Your task to perform on an android device: turn on translation in the chrome app Image 0: 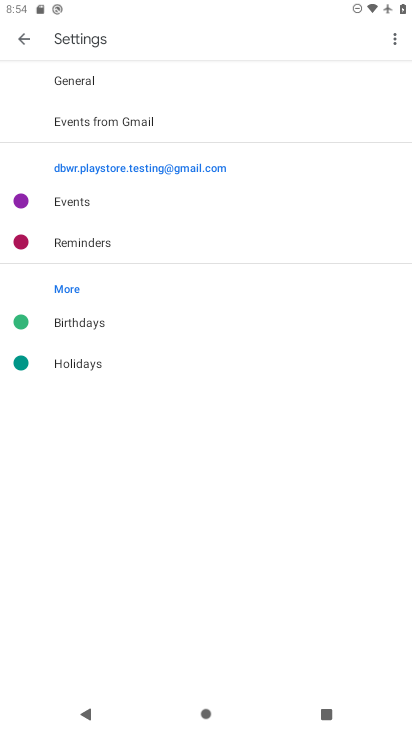
Step 0: press home button
Your task to perform on an android device: turn on translation in the chrome app Image 1: 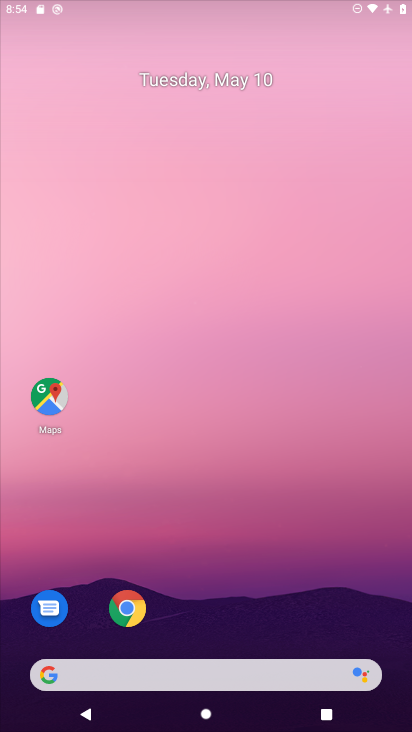
Step 1: drag from (236, 635) to (257, 249)
Your task to perform on an android device: turn on translation in the chrome app Image 2: 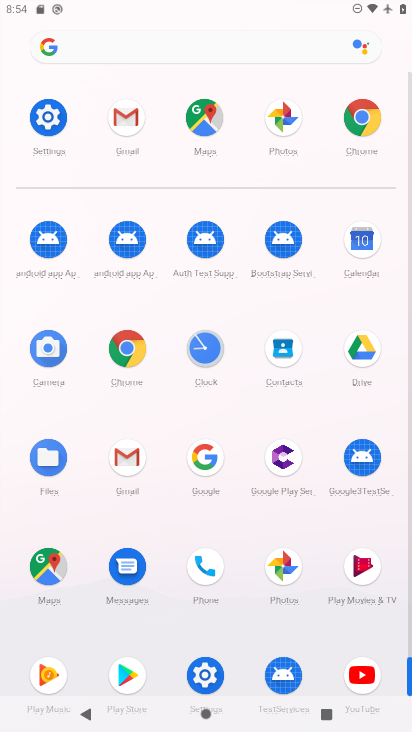
Step 2: click (121, 348)
Your task to perform on an android device: turn on translation in the chrome app Image 3: 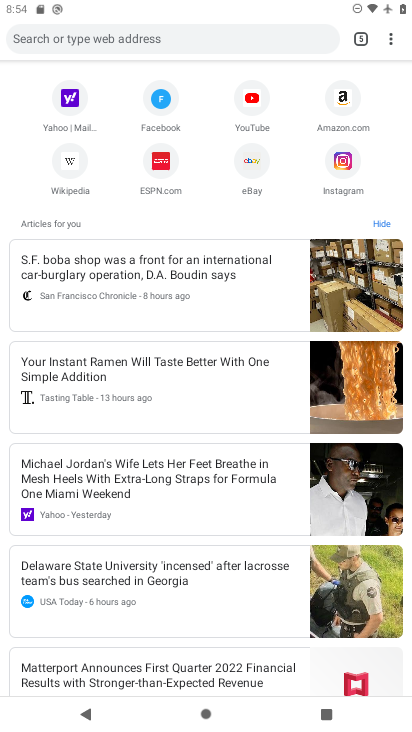
Step 3: click (376, 37)
Your task to perform on an android device: turn on translation in the chrome app Image 4: 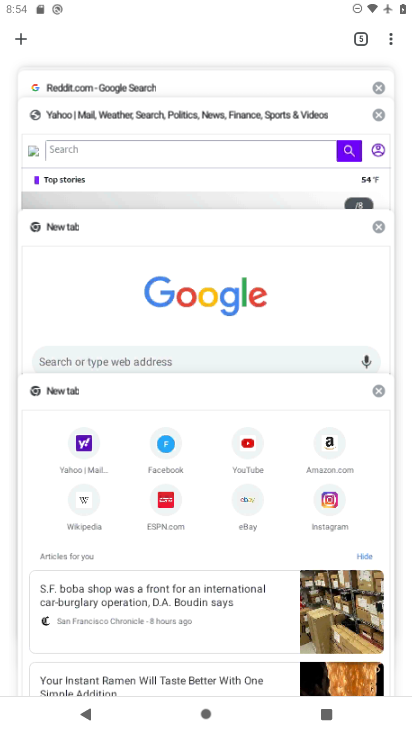
Step 4: click (376, 39)
Your task to perform on an android device: turn on translation in the chrome app Image 5: 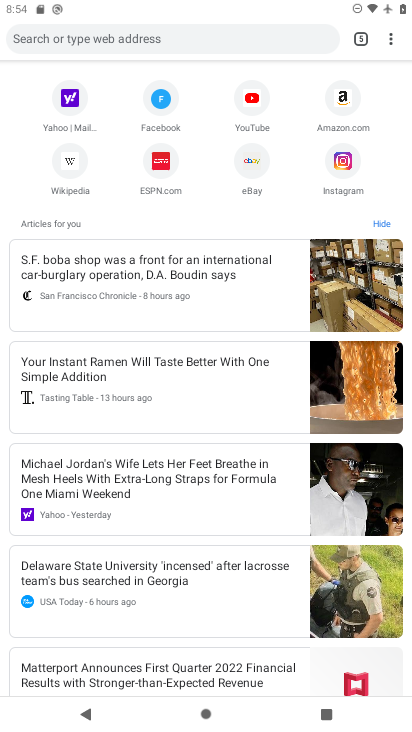
Step 5: click (376, 39)
Your task to perform on an android device: turn on translation in the chrome app Image 6: 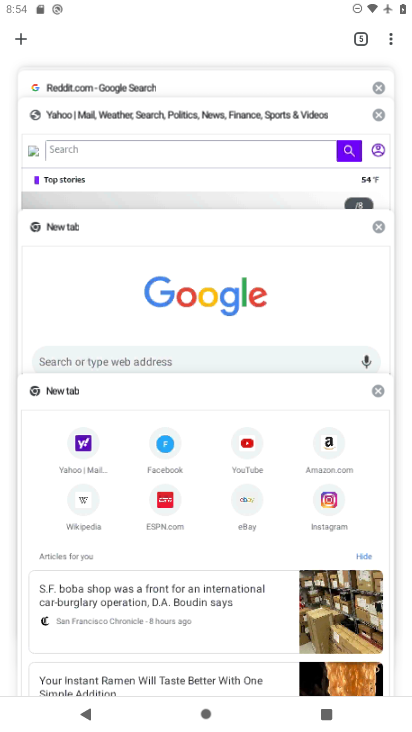
Step 6: click (376, 39)
Your task to perform on an android device: turn on translation in the chrome app Image 7: 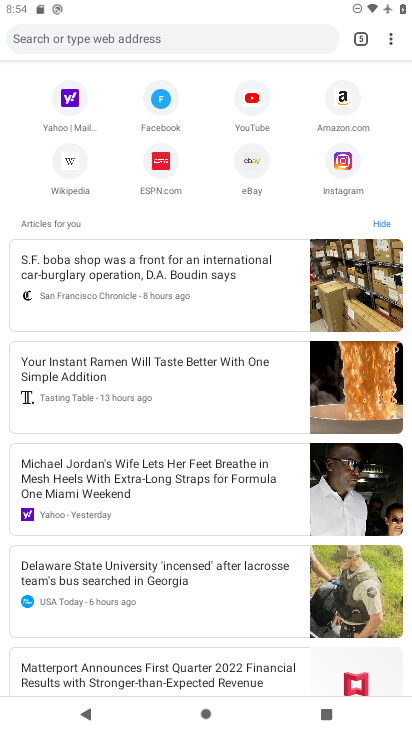
Step 7: click (377, 36)
Your task to perform on an android device: turn on translation in the chrome app Image 8: 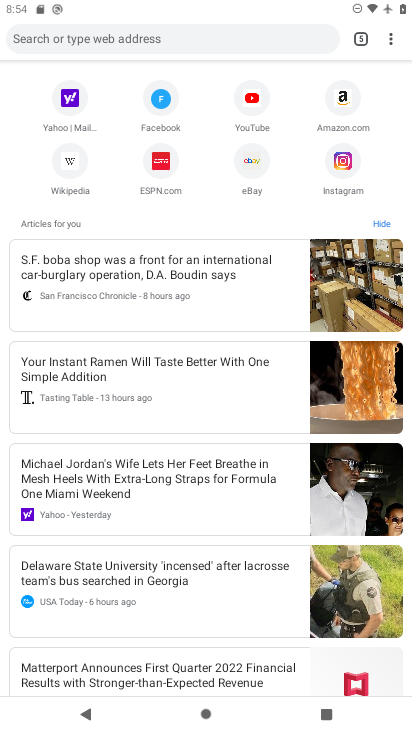
Step 8: click (377, 33)
Your task to perform on an android device: turn on translation in the chrome app Image 9: 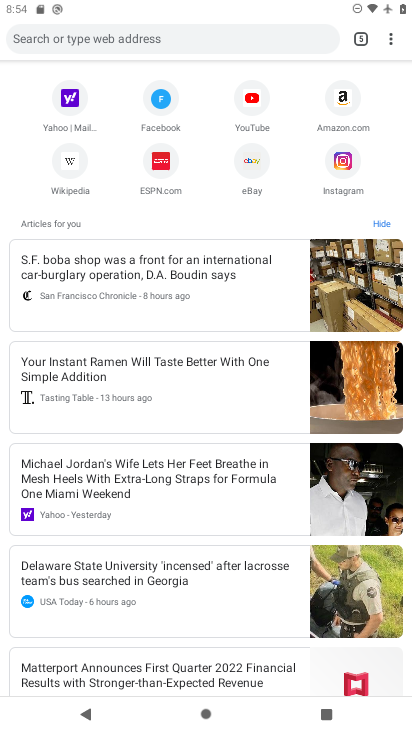
Step 9: click (371, 34)
Your task to perform on an android device: turn on translation in the chrome app Image 10: 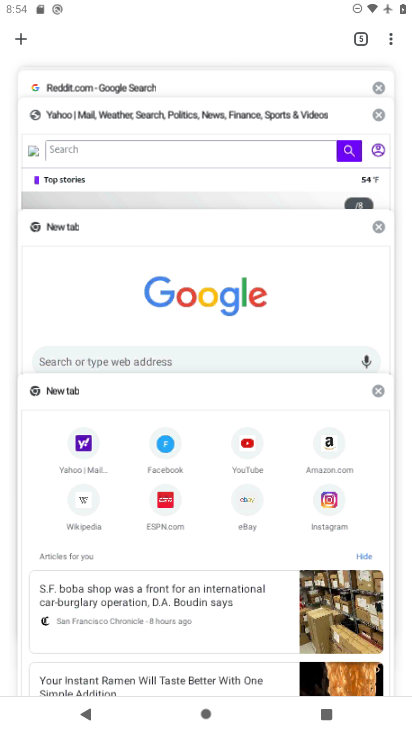
Step 10: click (380, 36)
Your task to perform on an android device: turn on translation in the chrome app Image 11: 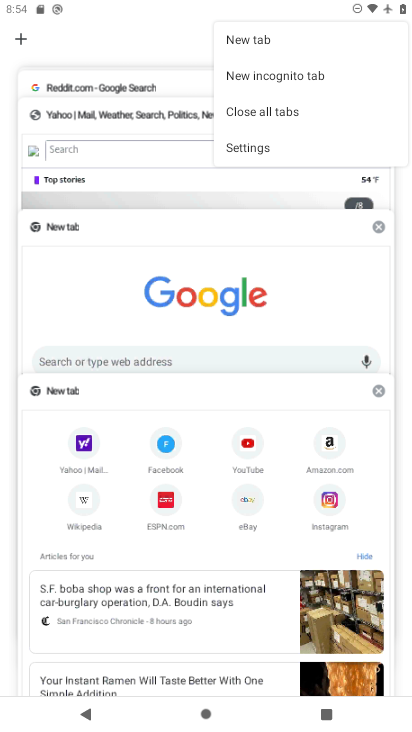
Step 11: click (264, 139)
Your task to perform on an android device: turn on translation in the chrome app Image 12: 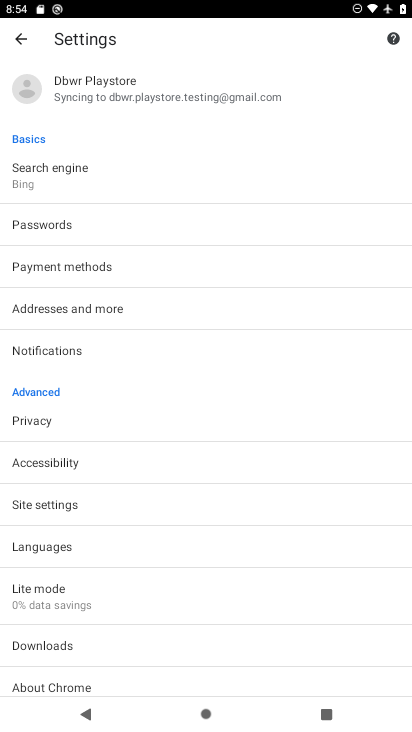
Step 12: click (88, 546)
Your task to perform on an android device: turn on translation in the chrome app Image 13: 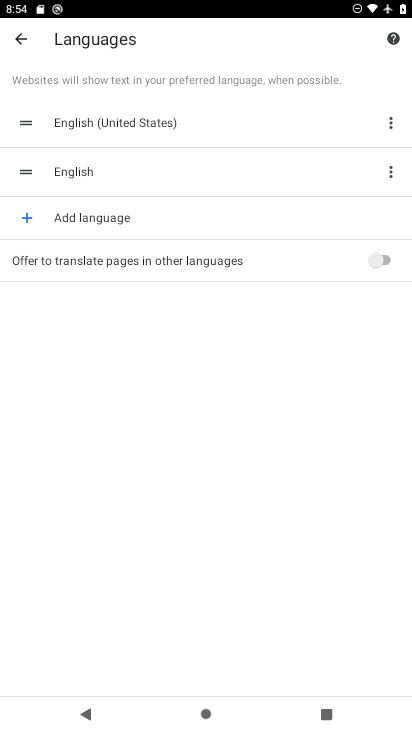
Step 13: click (372, 259)
Your task to perform on an android device: turn on translation in the chrome app Image 14: 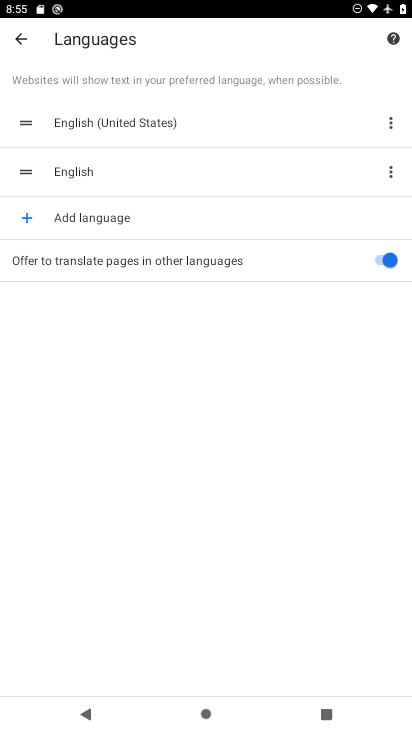
Step 14: press home button
Your task to perform on an android device: turn on translation in the chrome app Image 15: 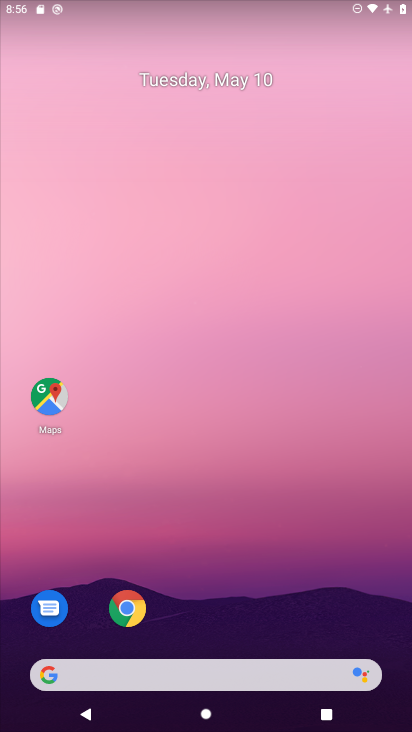
Step 15: drag from (220, 598) to (263, 243)
Your task to perform on an android device: turn on translation in the chrome app Image 16: 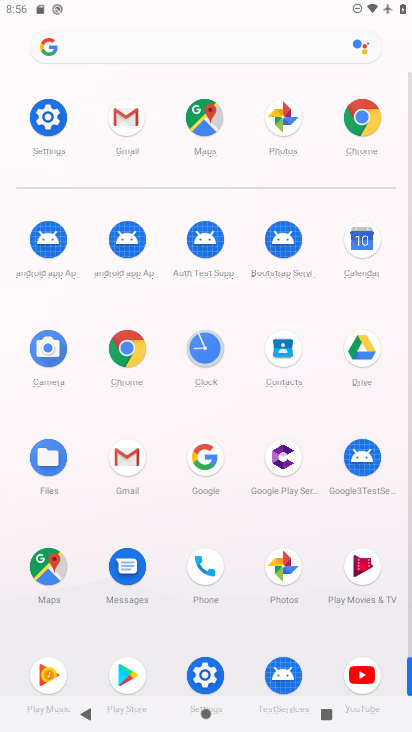
Step 16: click (355, 110)
Your task to perform on an android device: turn on translation in the chrome app Image 17: 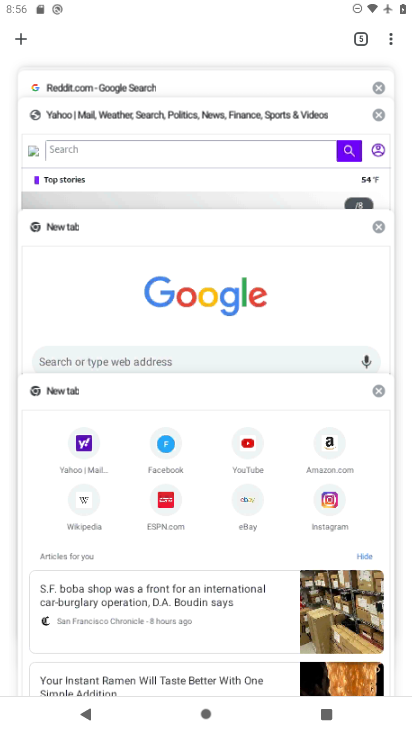
Step 17: click (384, 29)
Your task to perform on an android device: turn on translation in the chrome app Image 18: 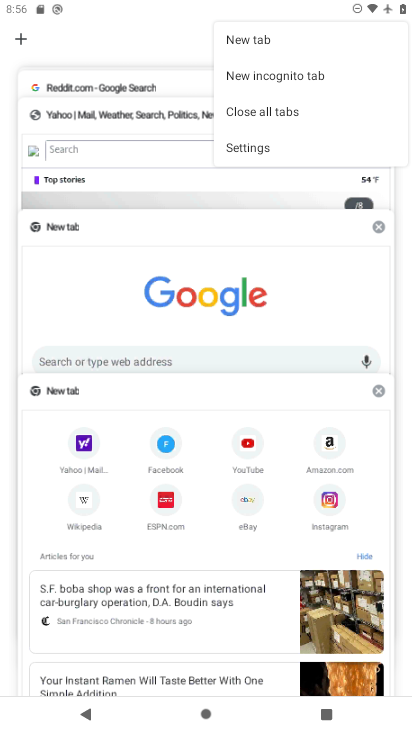
Step 18: click (246, 152)
Your task to perform on an android device: turn on translation in the chrome app Image 19: 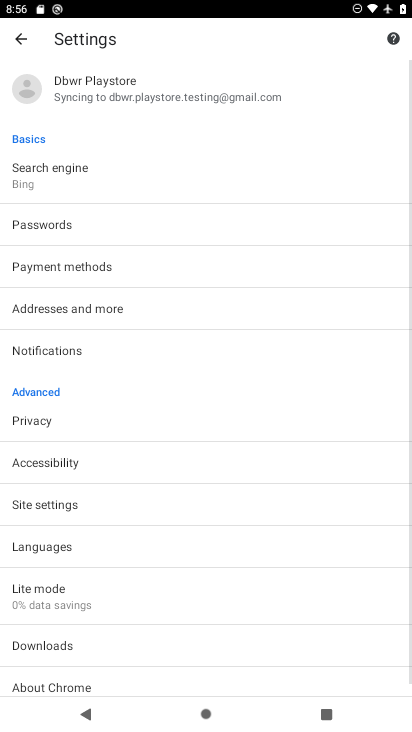
Step 19: click (98, 545)
Your task to perform on an android device: turn on translation in the chrome app Image 20: 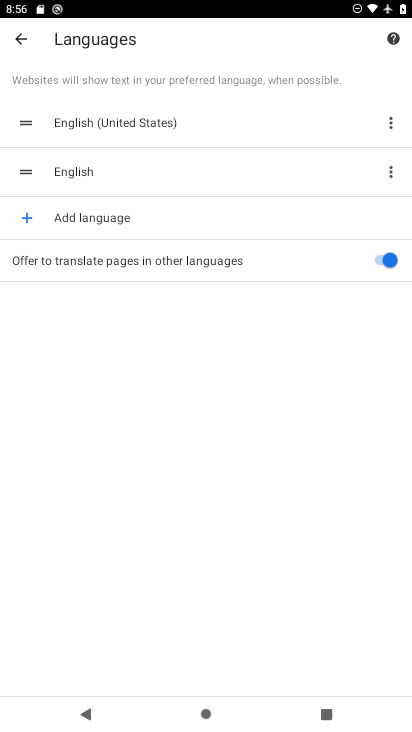
Step 20: task complete